Your task to perform on an android device: Search for logitech g910 on target.com, select the first entry, add it to the cart, then select checkout. Image 0: 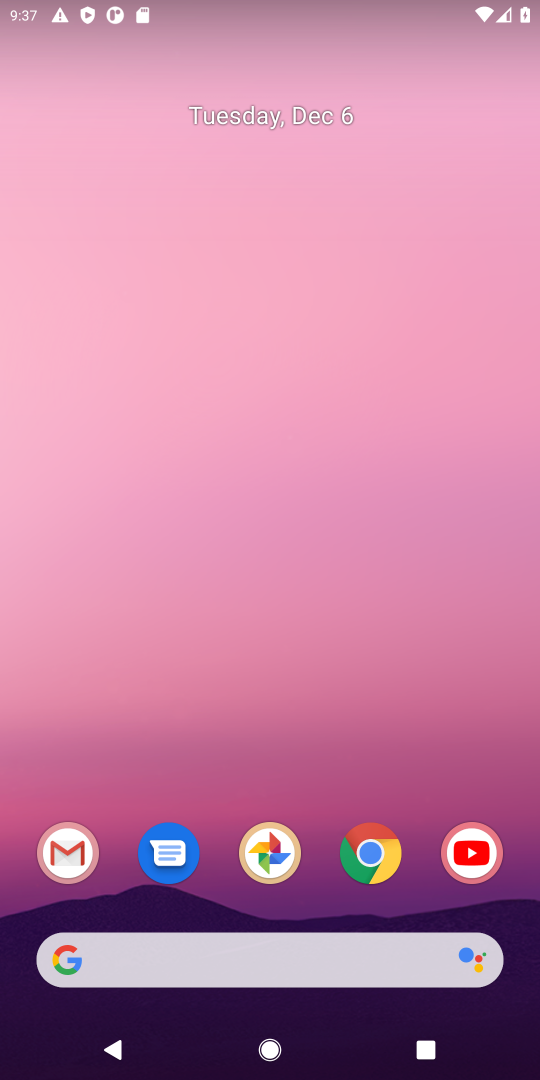
Step 0: click (360, 870)
Your task to perform on an android device: Search for logitech g910 on target.com, select the first entry, add it to the cart, then select checkout. Image 1: 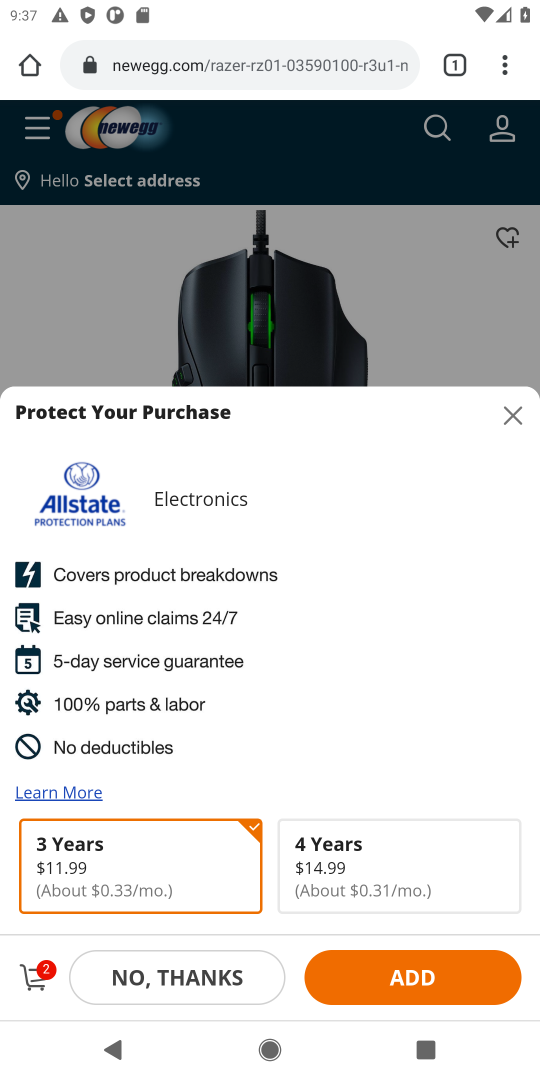
Step 1: click (519, 415)
Your task to perform on an android device: Search for logitech g910 on target.com, select the first entry, add it to the cart, then select checkout. Image 2: 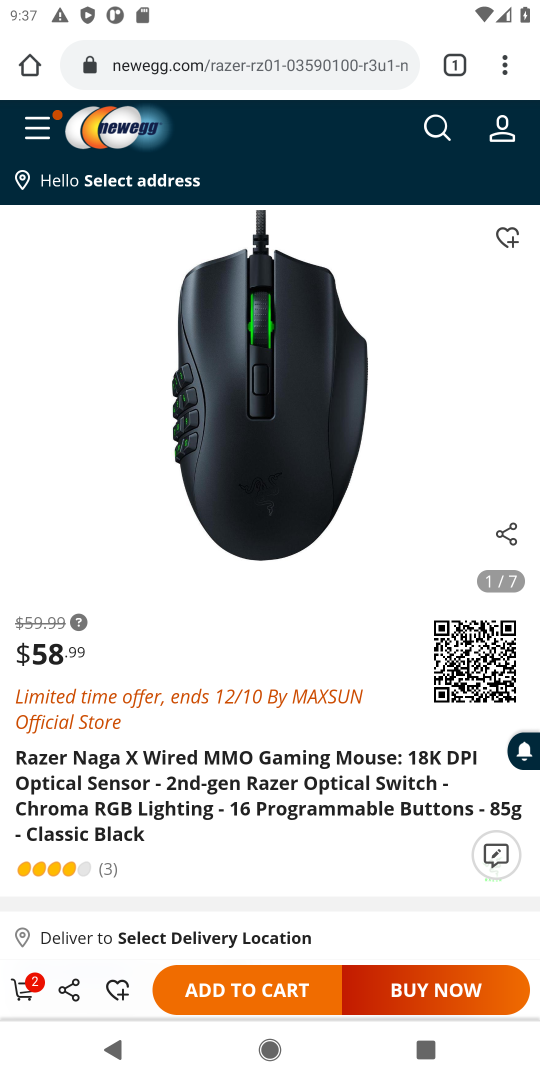
Step 2: click (323, 60)
Your task to perform on an android device: Search for logitech g910 on target.com, select the first entry, add it to the cart, then select checkout. Image 3: 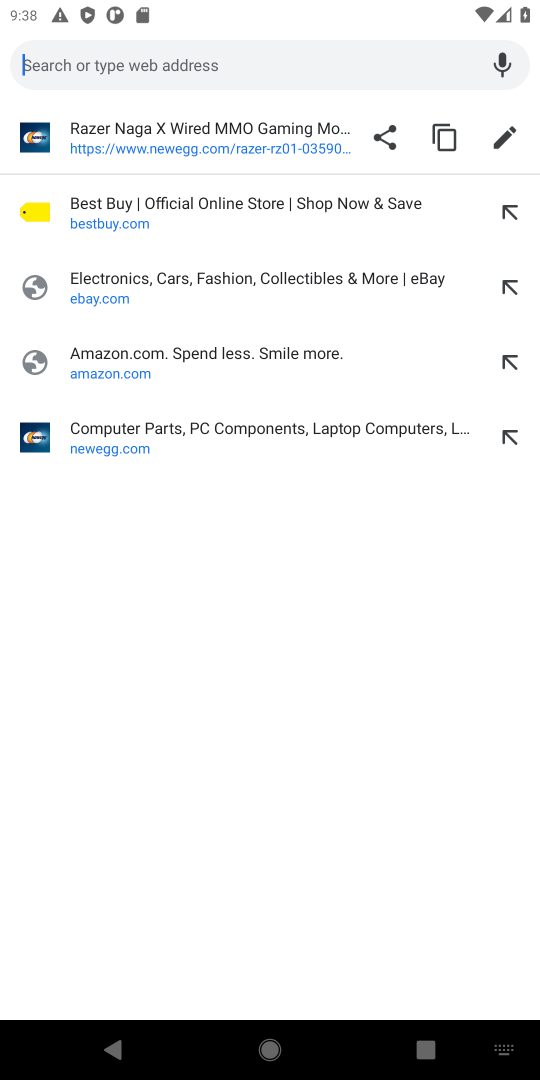
Step 3: type "target"
Your task to perform on an android device: Search for logitech g910 on target.com, select the first entry, add it to the cart, then select checkout. Image 4: 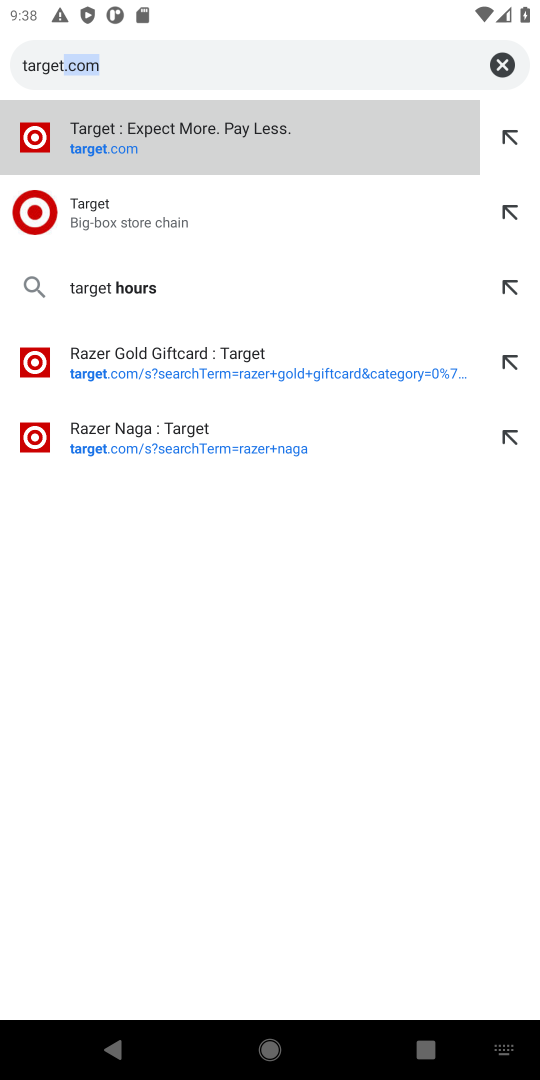
Step 4: click (312, 122)
Your task to perform on an android device: Search for logitech g910 on target.com, select the first entry, add it to the cart, then select checkout. Image 5: 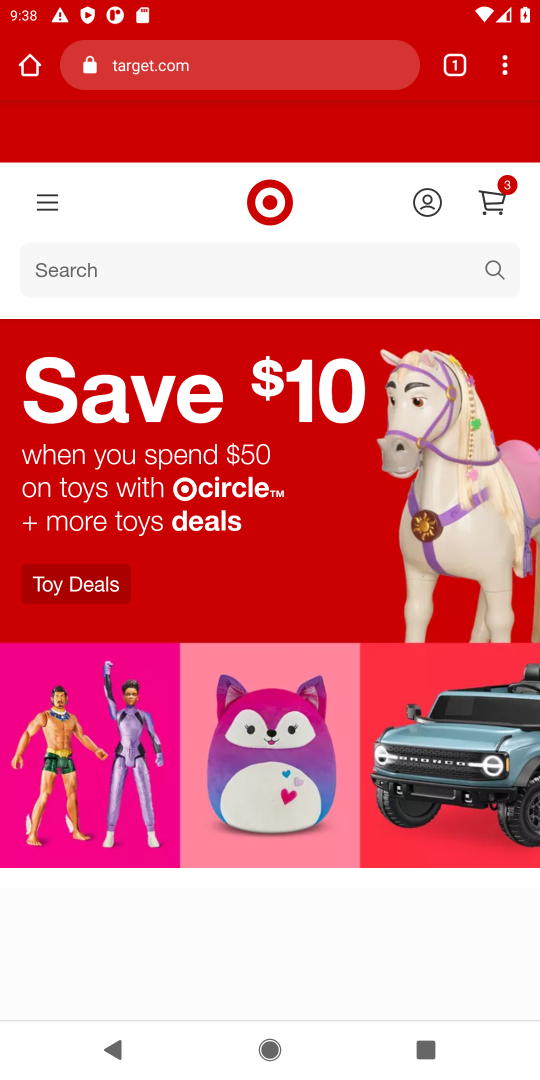
Step 5: click (498, 262)
Your task to perform on an android device: Search for logitech g910 on target.com, select the first entry, add it to the cart, then select checkout. Image 6: 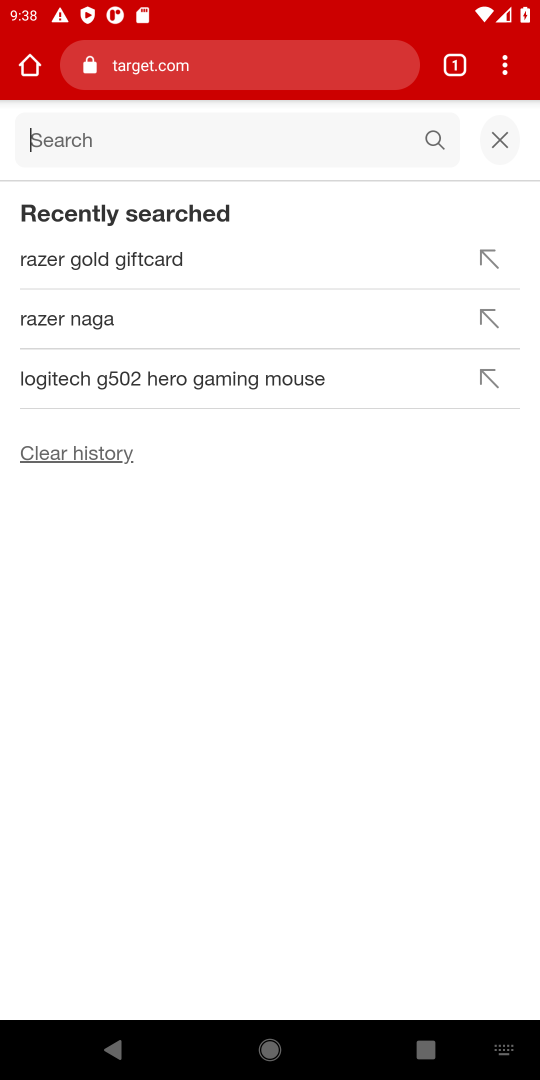
Step 6: click (377, 130)
Your task to perform on an android device: Search for logitech g910 on target.com, select the first entry, add it to the cart, then select checkout. Image 7: 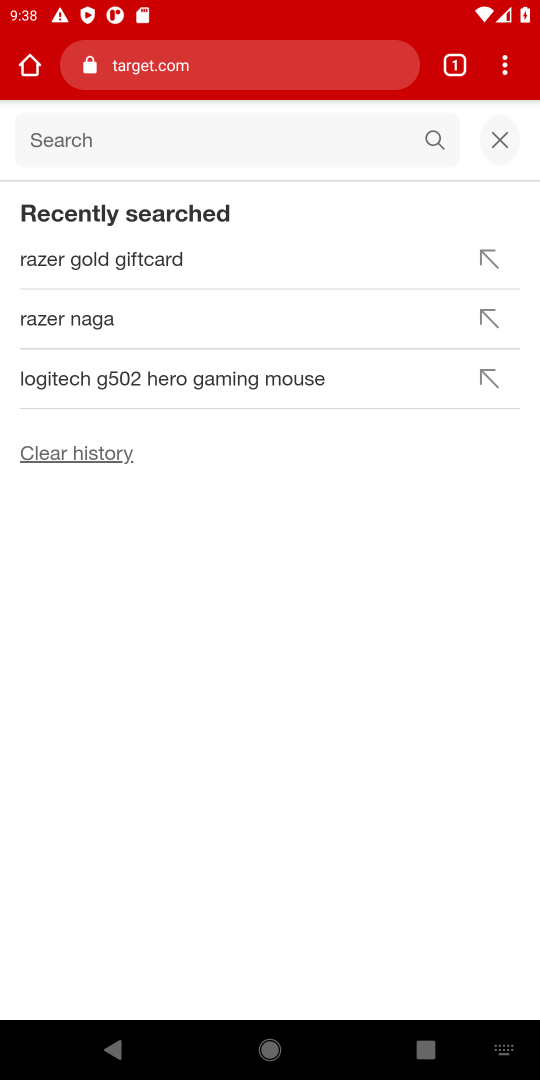
Step 7: type "logitech g910"
Your task to perform on an android device: Search for logitech g910 on target.com, select the first entry, add it to the cart, then select checkout. Image 8: 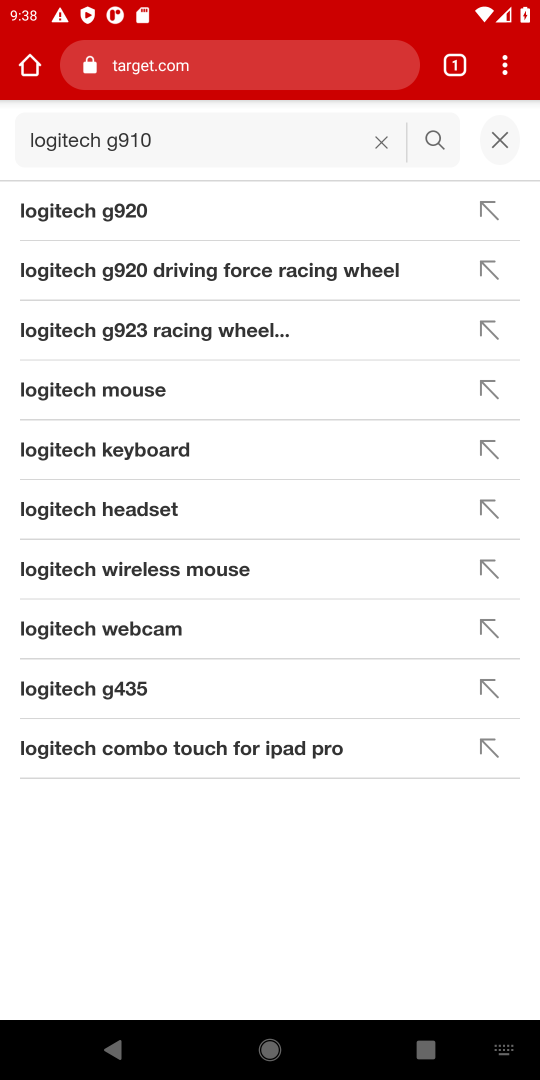
Step 8: click (138, 213)
Your task to perform on an android device: Search for logitech g910 on target.com, select the first entry, add it to the cart, then select checkout. Image 9: 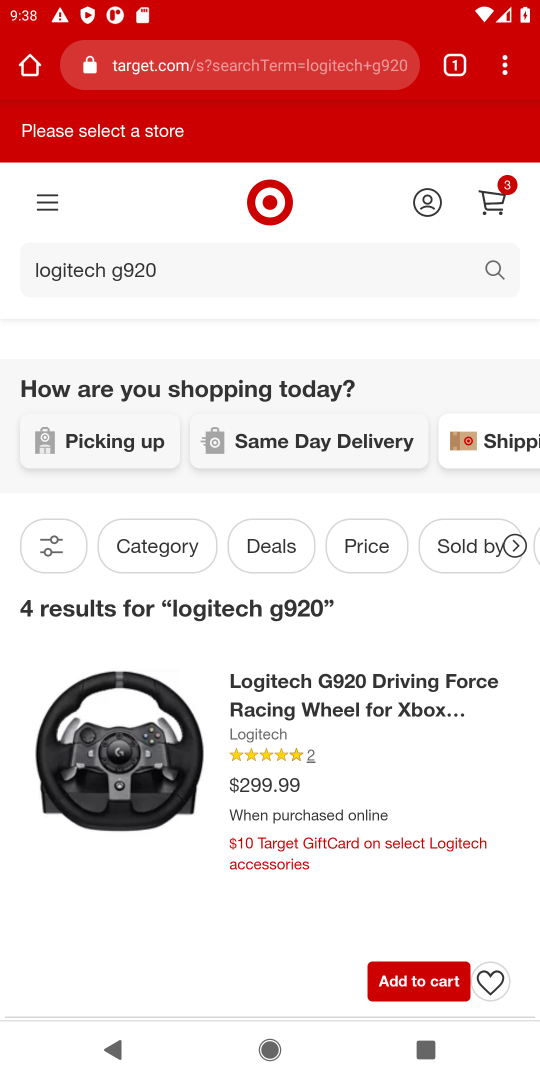
Step 9: click (420, 998)
Your task to perform on an android device: Search for logitech g910 on target.com, select the first entry, add it to the cart, then select checkout. Image 10: 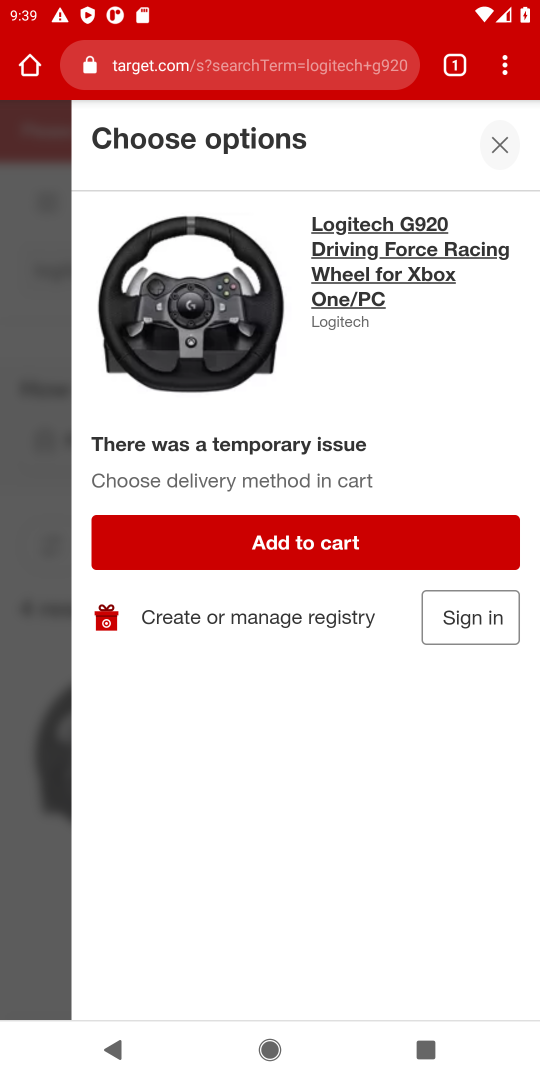
Step 10: click (389, 533)
Your task to perform on an android device: Search for logitech g910 on target.com, select the first entry, add it to the cart, then select checkout. Image 11: 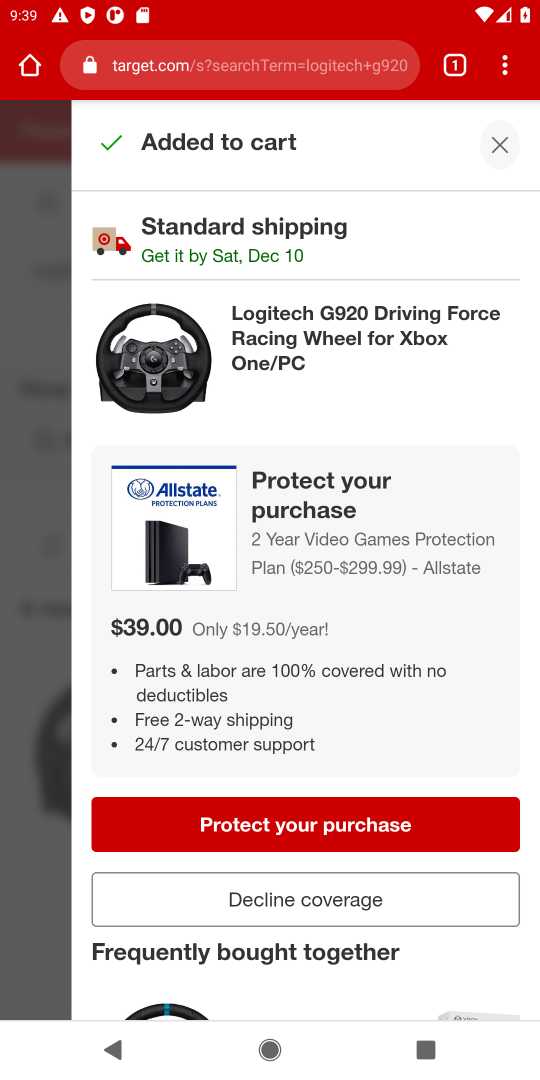
Step 11: task complete